Your task to perform on an android device: delete a single message in the gmail app Image 0: 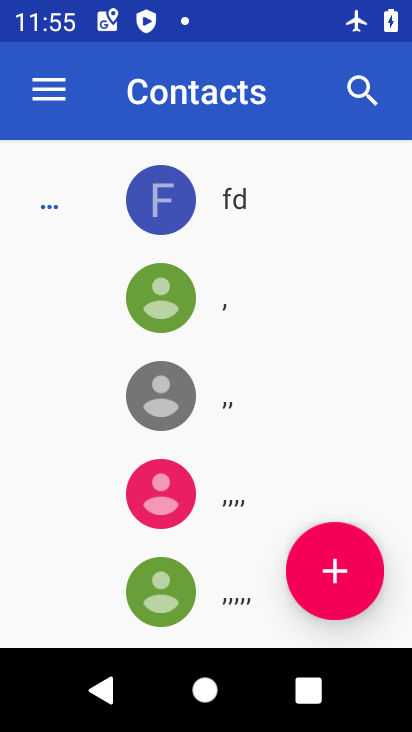
Step 0: press home button
Your task to perform on an android device: delete a single message in the gmail app Image 1: 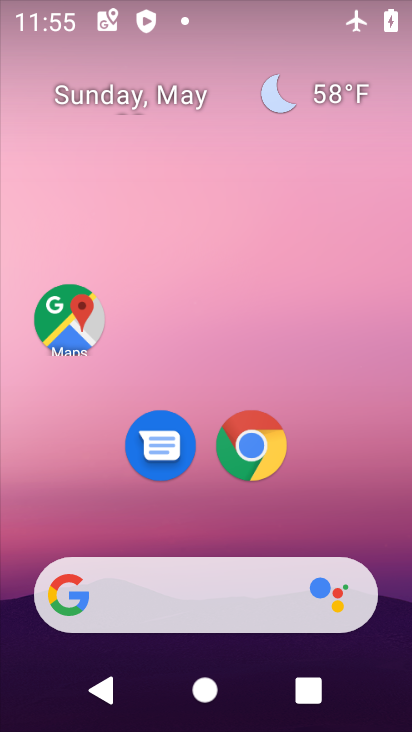
Step 1: drag from (208, 533) to (236, 72)
Your task to perform on an android device: delete a single message in the gmail app Image 2: 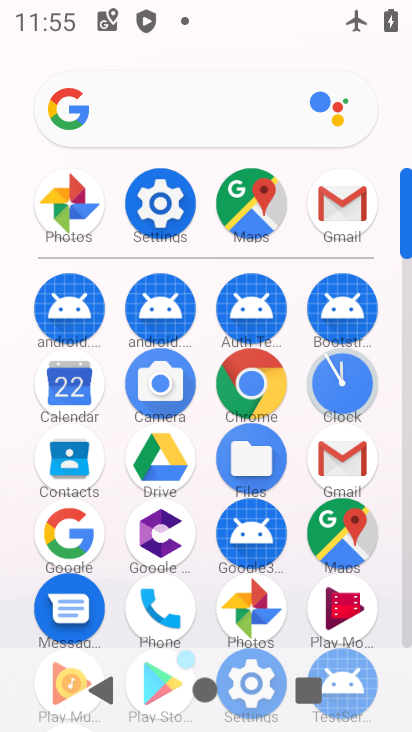
Step 2: click (341, 202)
Your task to perform on an android device: delete a single message in the gmail app Image 3: 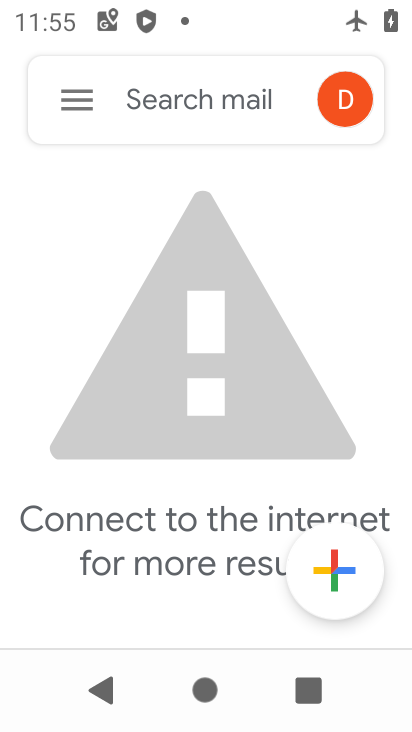
Step 3: task complete